Your task to perform on an android device: see tabs open on other devices in the chrome app Image 0: 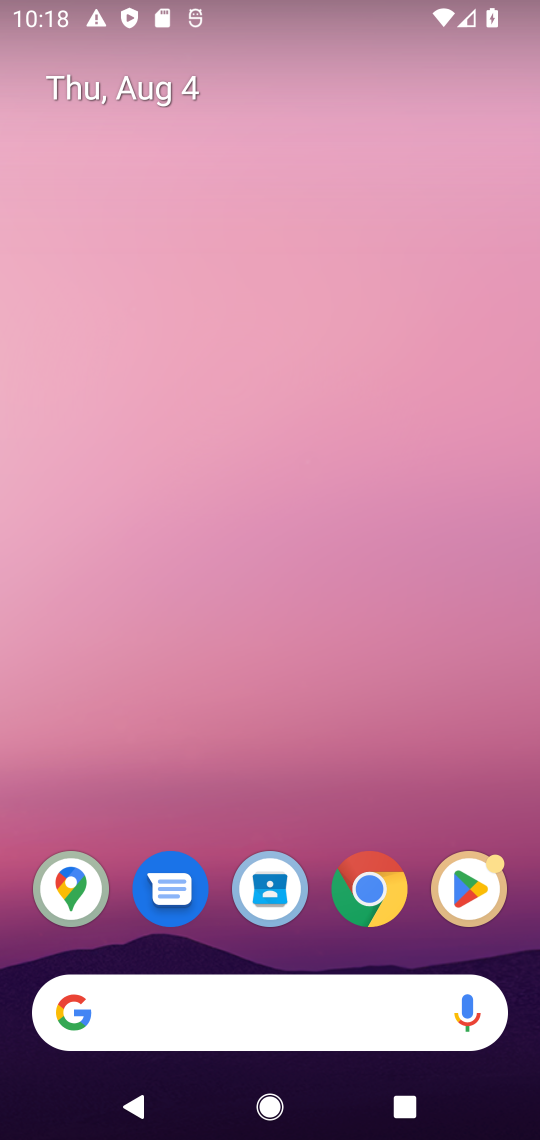
Step 0: press home button
Your task to perform on an android device: see tabs open on other devices in the chrome app Image 1: 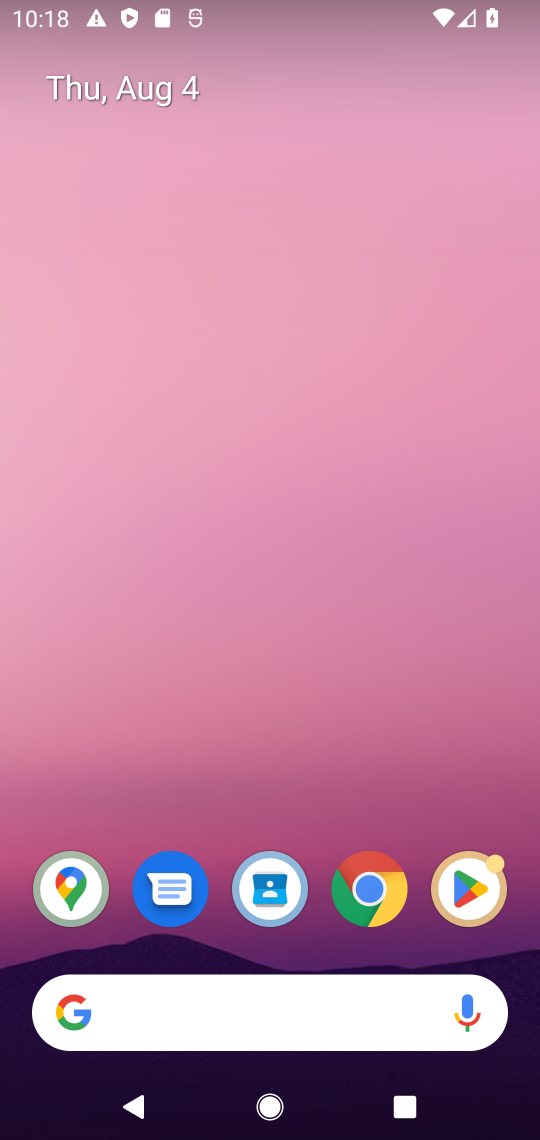
Step 1: drag from (315, 796) to (322, 285)
Your task to perform on an android device: see tabs open on other devices in the chrome app Image 2: 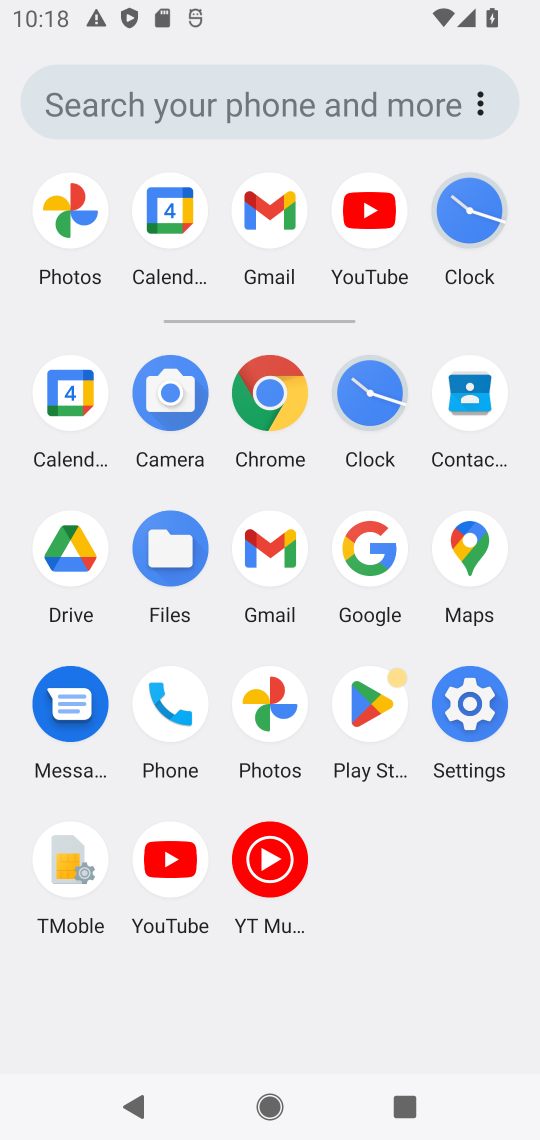
Step 2: click (272, 393)
Your task to perform on an android device: see tabs open on other devices in the chrome app Image 3: 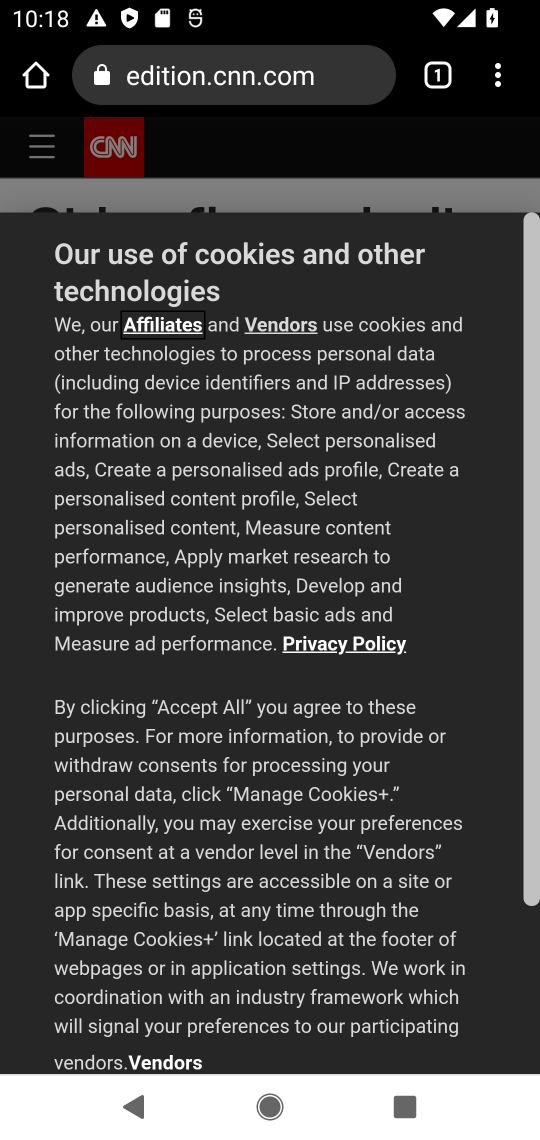
Step 3: click (499, 79)
Your task to perform on an android device: see tabs open on other devices in the chrome app Image 4: 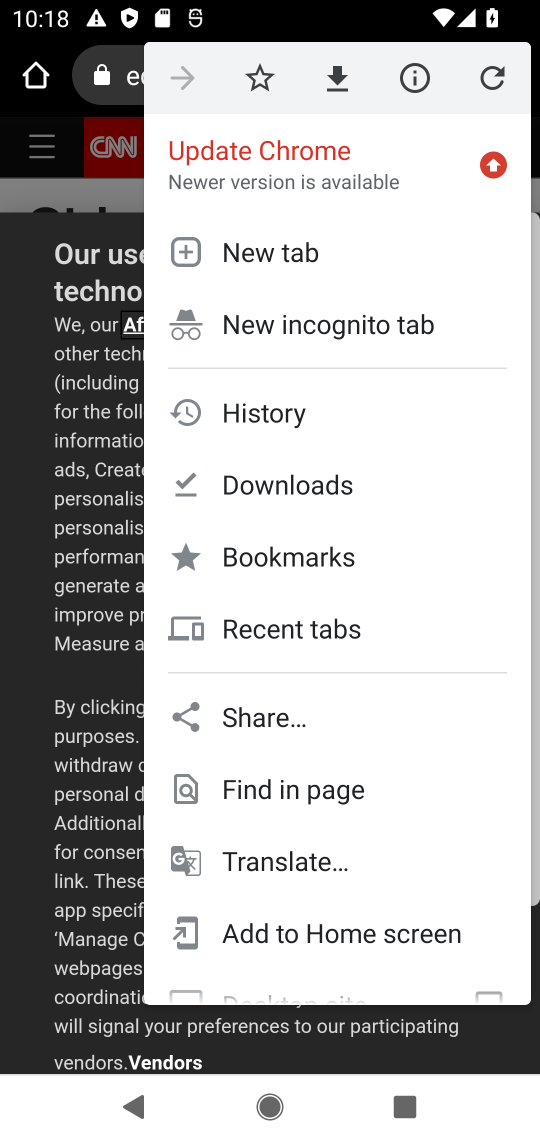
Step 4: click (348, 632)
Your task to perform on an android device: see tabs open on other devices in the chrome app Image 5: 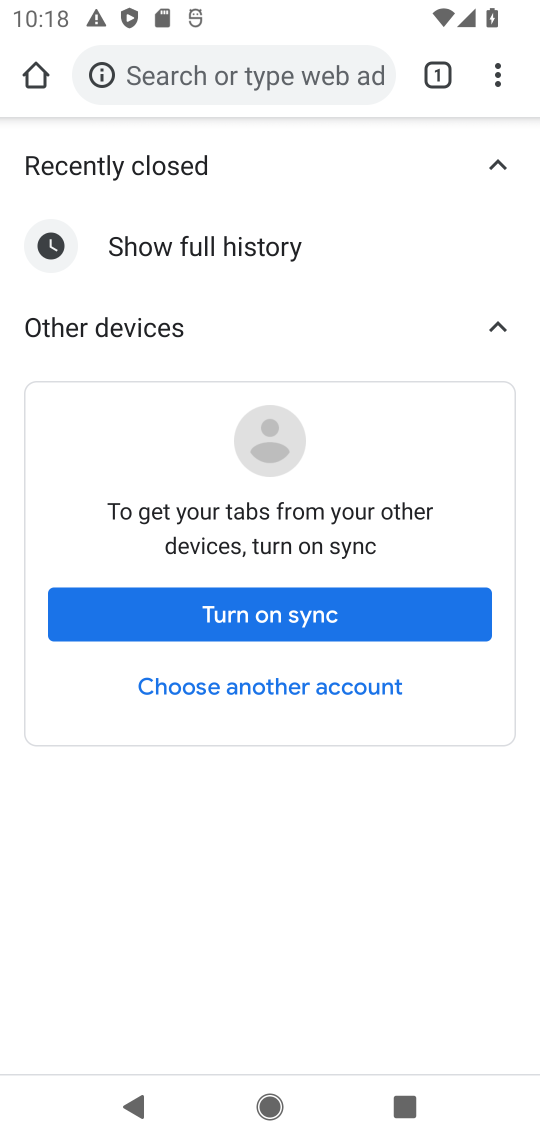
Step 5: click (440, 69)
Your task to perform on an android device: see tabs open on other devices in the chrome app Image 6: 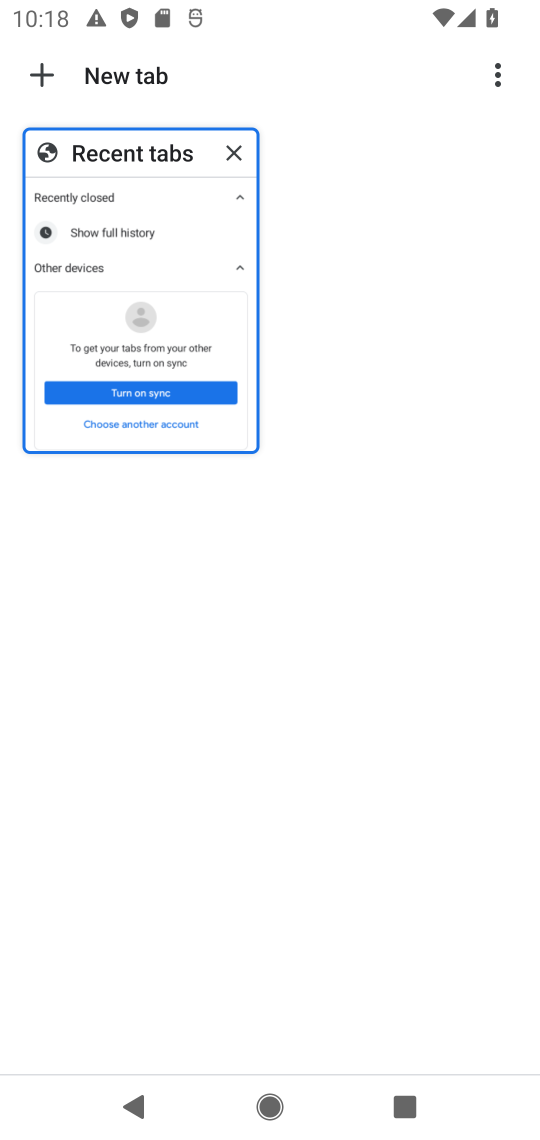
Step 6: task complete